Your task to perform on an android device: Open the map Image 0: 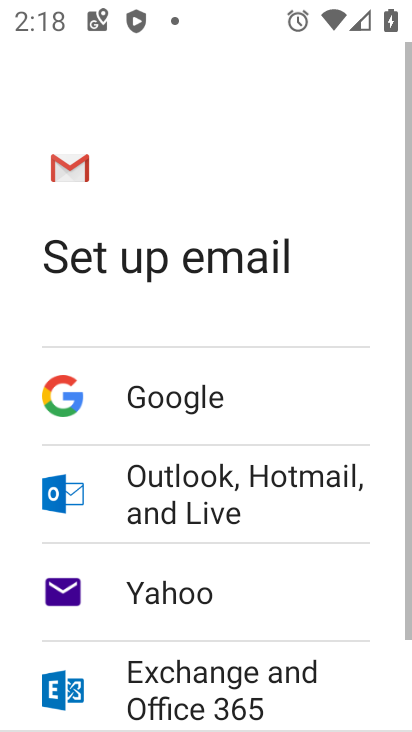
Step 0: press home button
Your task to perform on an android device: Open the map Image 1: 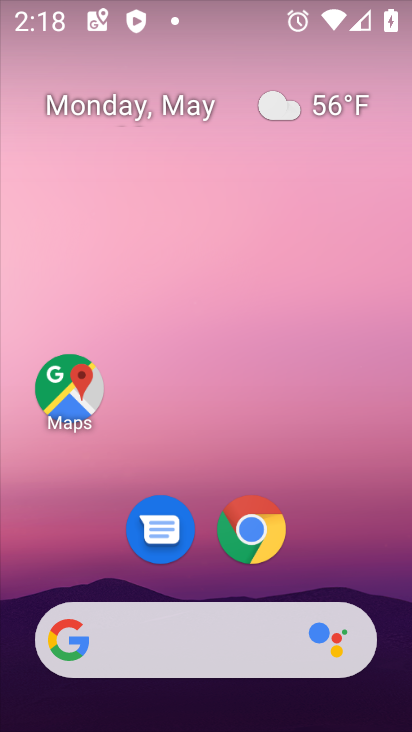
Step 1: drag from (328, 587) to (310, 47)
Your task to perform on an android device: Open the map Image 2: 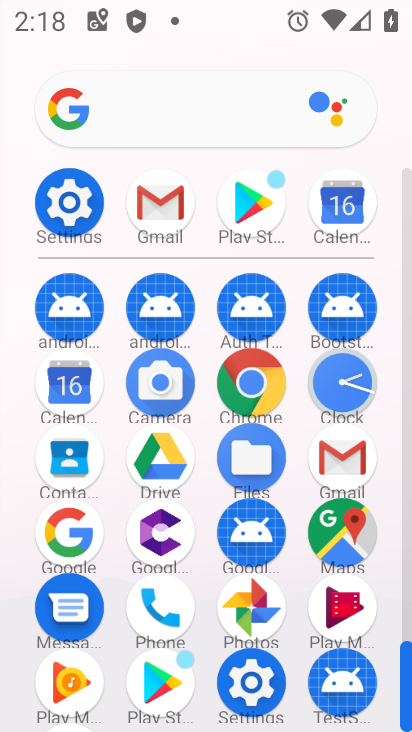
Step 2: click (351, 524)
Your task to perform on an android device: Open the map Image 3: 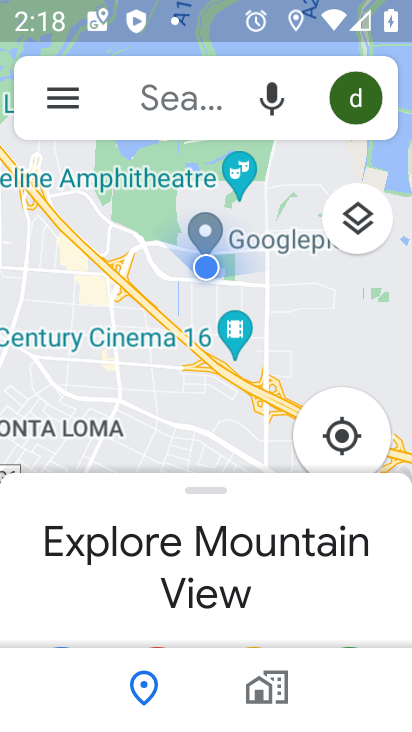
Step 3: task complete